Your task to perform on an android device: refresh tabs in the chrome app Image 0: 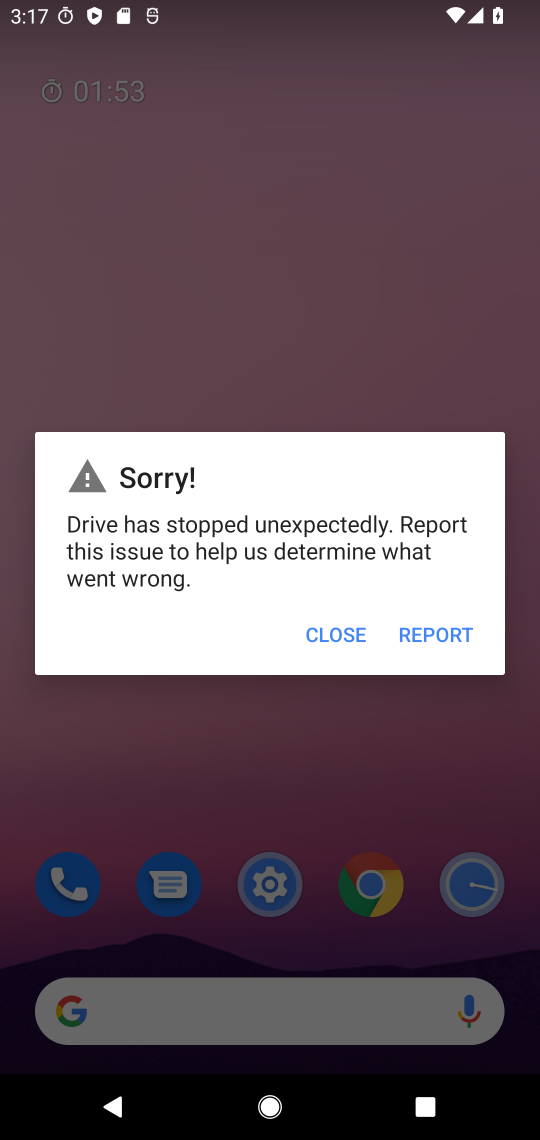
Step 0: click (343, 651)
Your task to perform on an android device: refresh tabs in the chrome app Image 1: 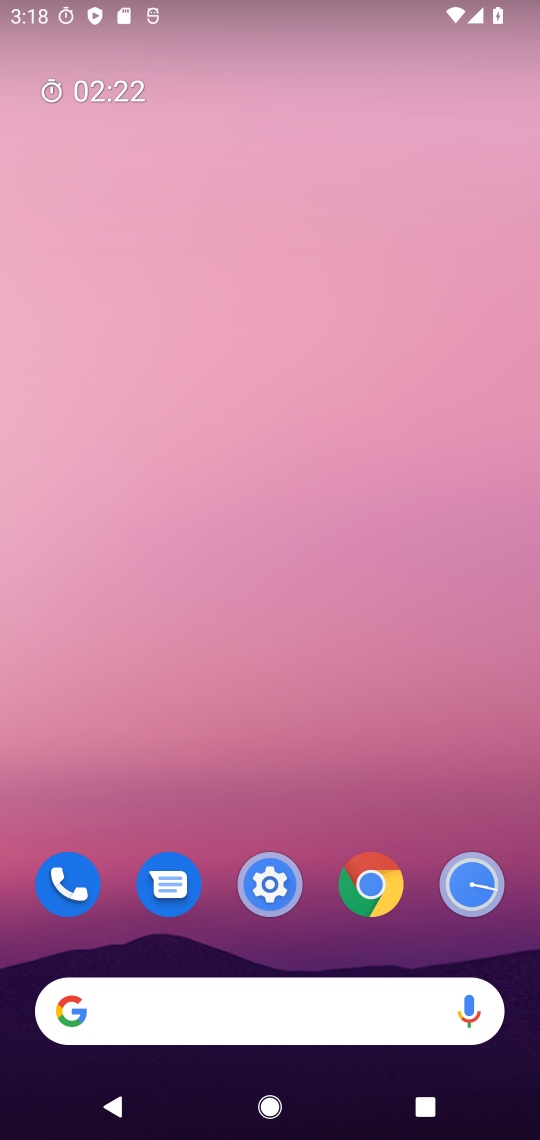
Step 1: click (388, 881)
Your task to perform on an android device: refresh tabs in the chrome app Image 2: 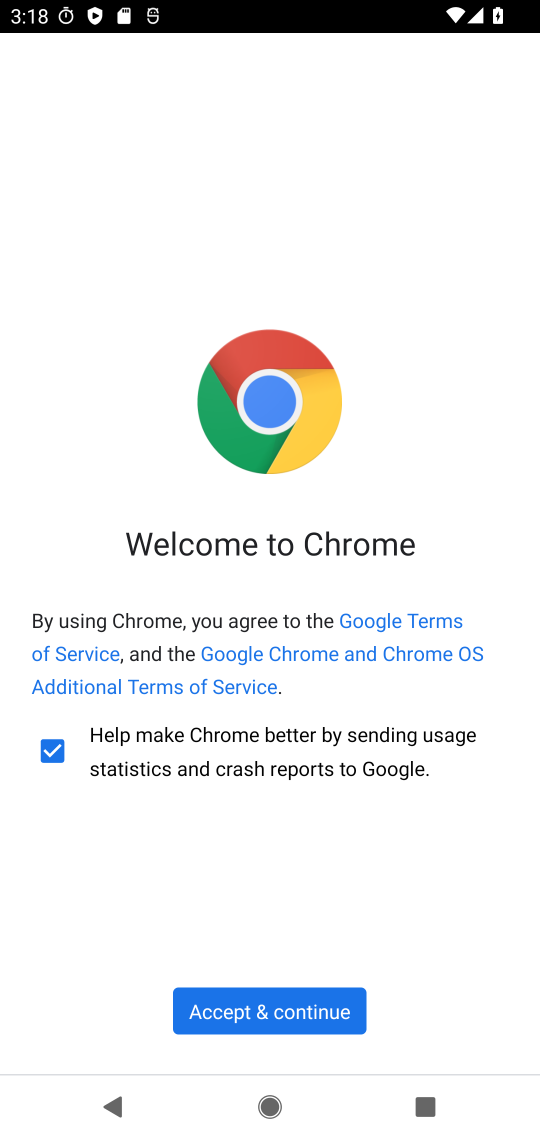
Step 2: click (322, 1009)
Your task to perform on an android device: refresh tabs in the chrome app Image 3: 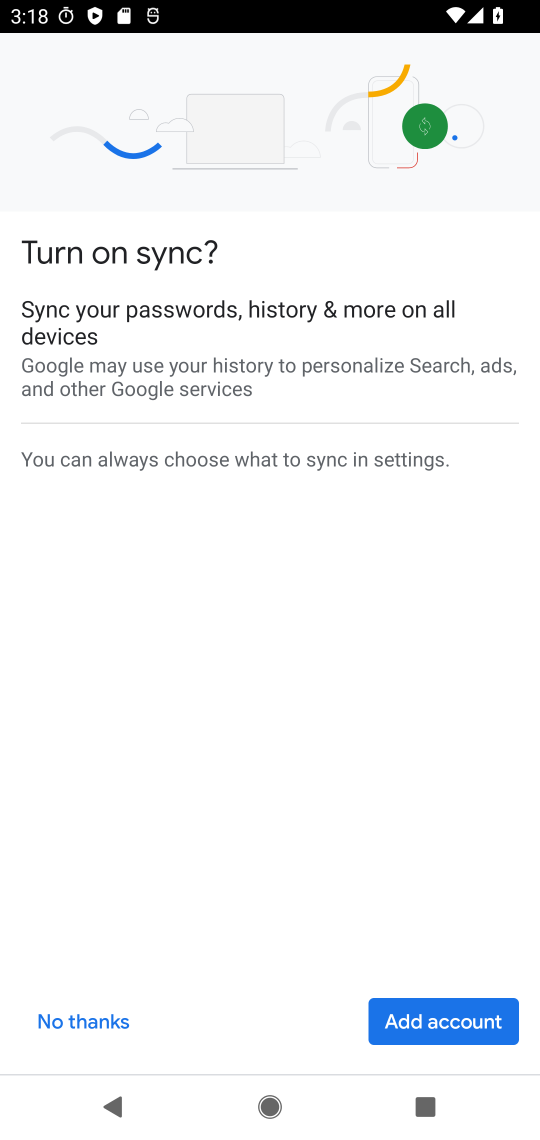
Step 3: click (53, 1016)
Your task to perform on an android device: refresh tabs in the chrome app Image 4: 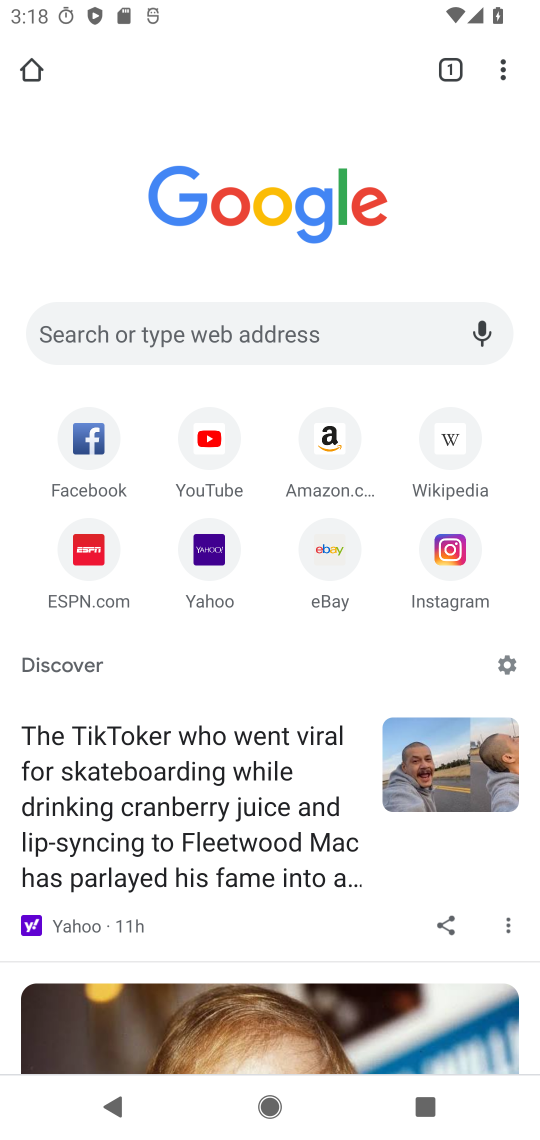
Step 4: click (509, 57)
Your task to perform on an android device: refresh tabs in the chrome app Image 5: 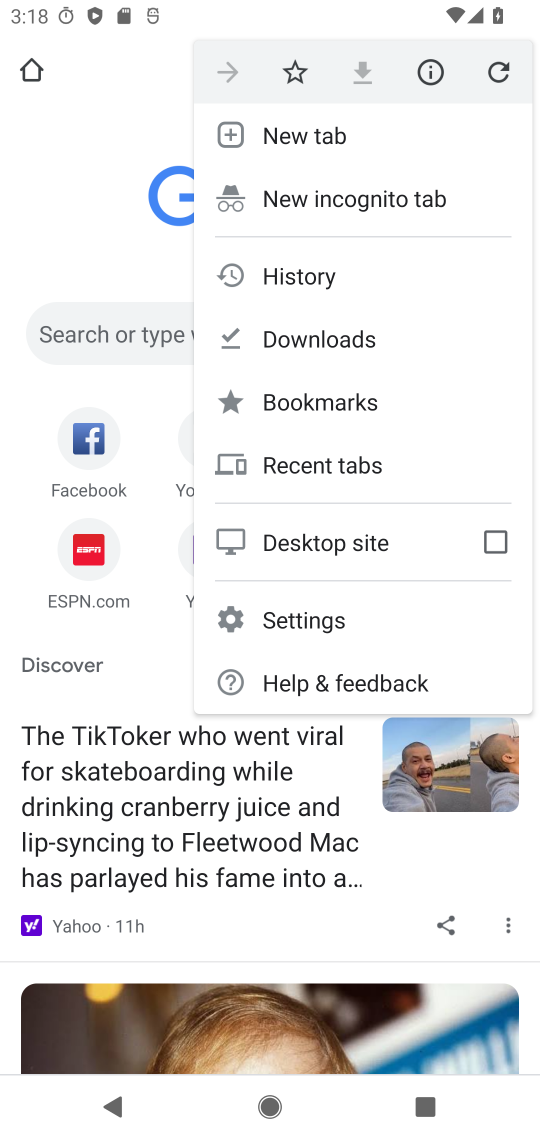
Step 5: click (508, 77)
Your task to perform on an android device: refresh tabs in the chrome app Image 6: 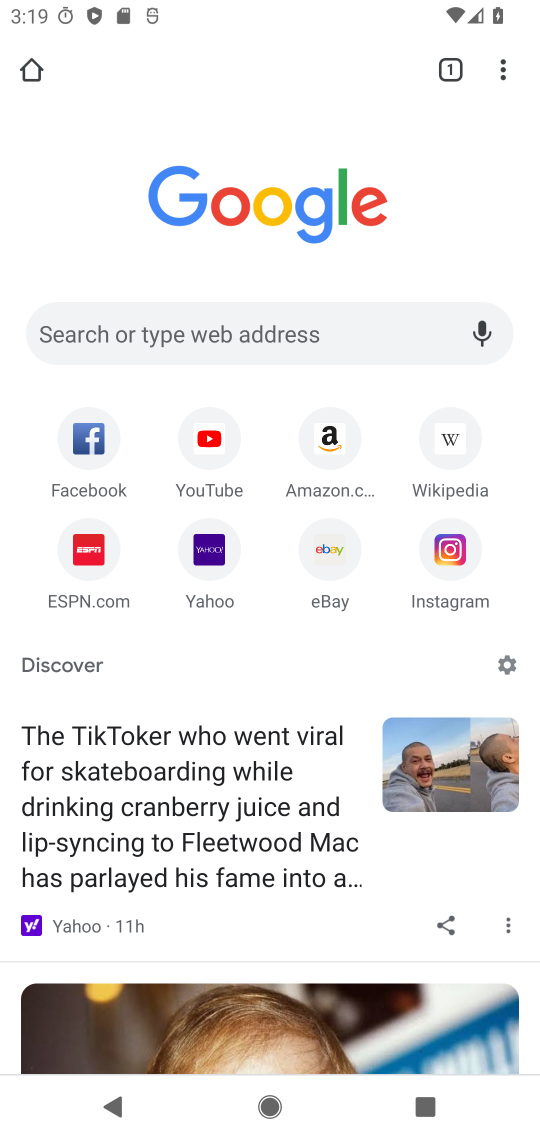
Step 6: task complete